Your task to perform on an android device: turn pop-ups off in chrome Image 0: 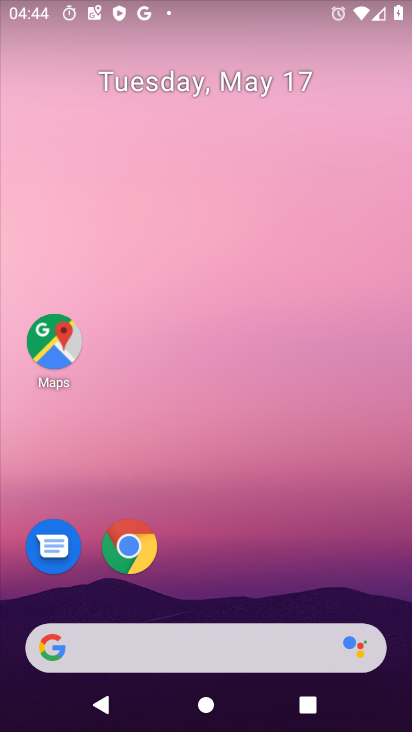
Step 0: click (139, 553)
Your task to perform on an android device: turn pop-ups off in chrome Image 1: 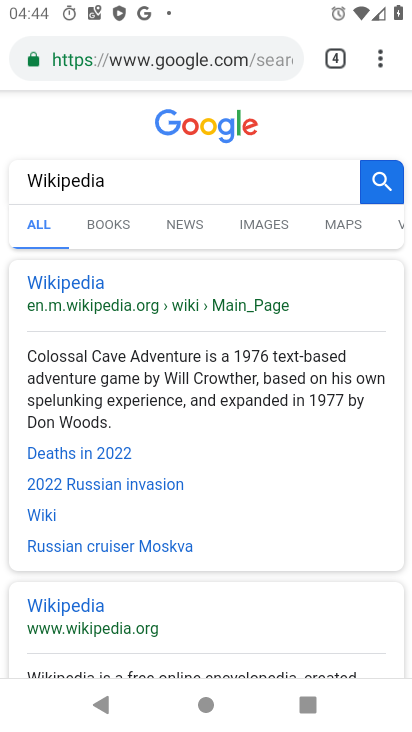
Step 1: click (380, 58)
Your task to perform on an android device: turn pop-ups off in chrome Image 2: 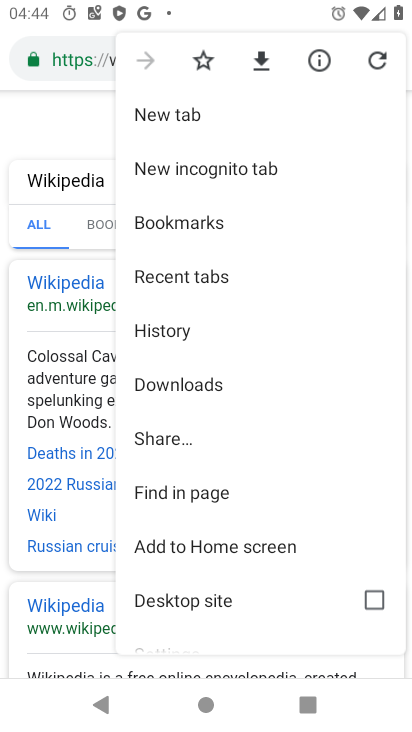
Step 2: drag from (254, 572) to (227, 382)
Your task to perform on an android device: turn pop-ups off in chrome Image 3: 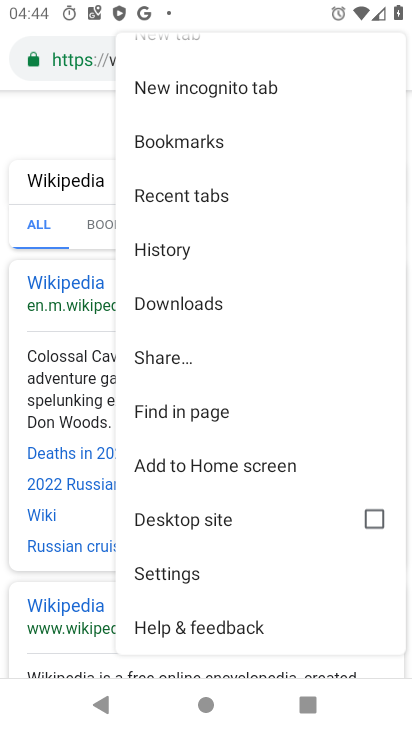
Step 3: click (169, 573)
Your task to perform on an android device: turn pop-ups off in chrome Image 4: 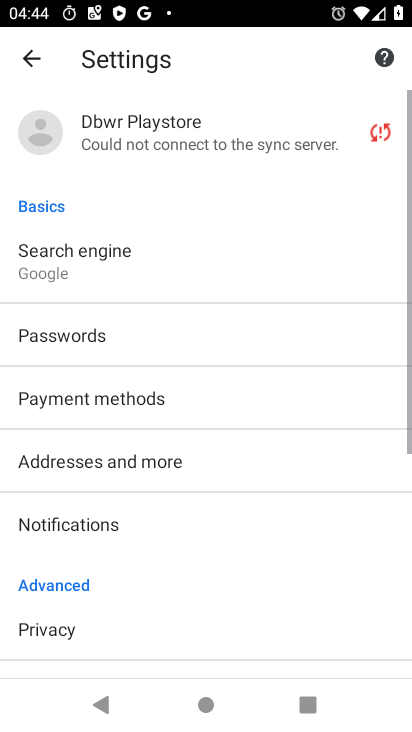
Step 4: drag from (260, 625) to (277, 342)
Your task to perform on an android device: turn pop-ups off in chrome Image 5: 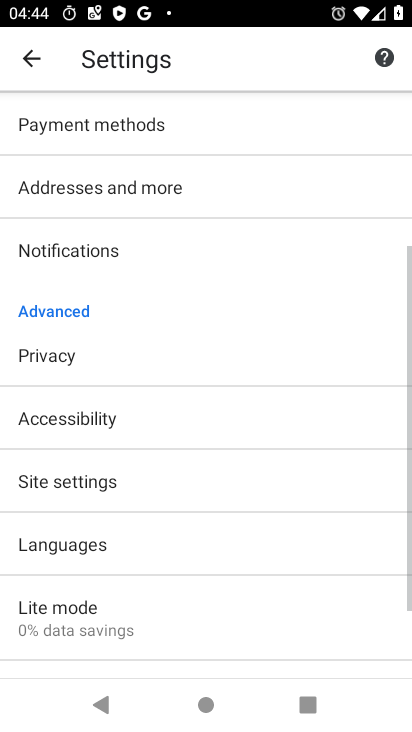
Step 5: click (51, 480)
Your task to perform on an android device: turn pop-ups off in chrome Image 6: 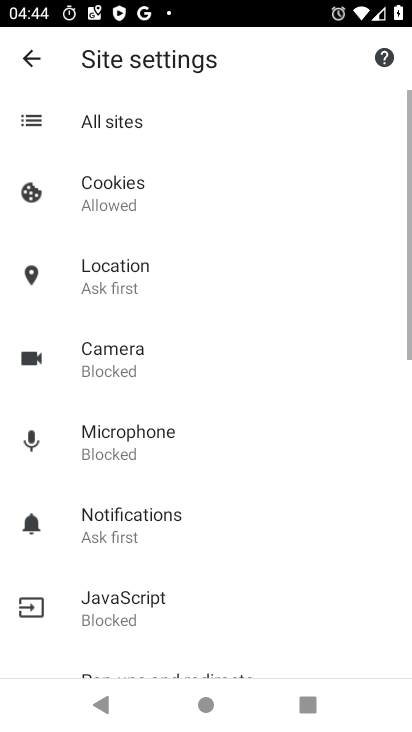
Step 6: drag from (250, 563) to (274, 308)
Your task to perform on an android device: turn pop-ups off in chrome Image 7: 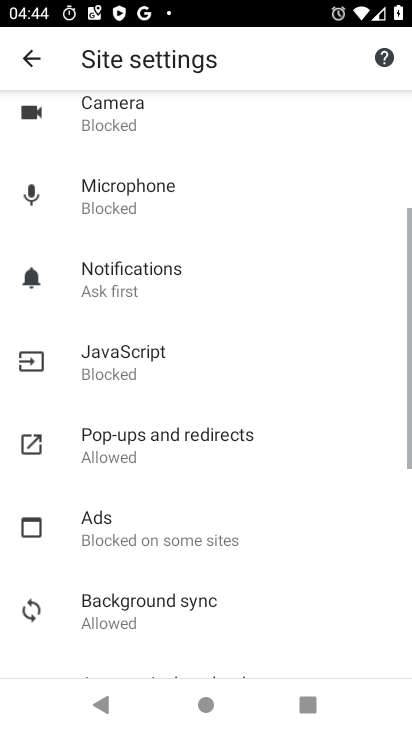
Step 7: click (120, 440)
Your task to perform on an android device: turn pop-ups off in chrome Image 8: 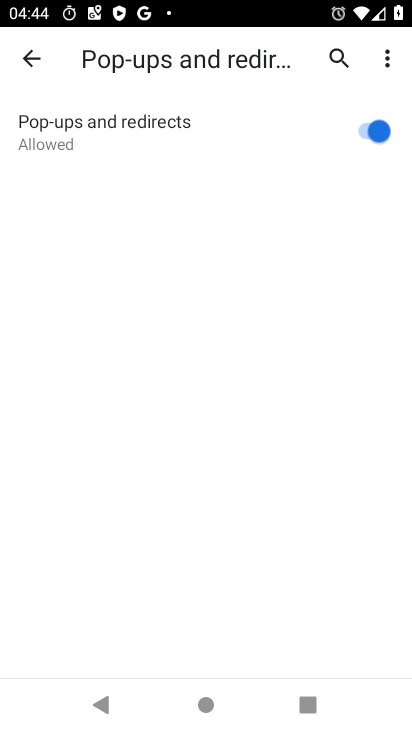
Step 8: click (364, 134)
Your task to perform on an android device: turn pop-ups off in chrome Image 9: 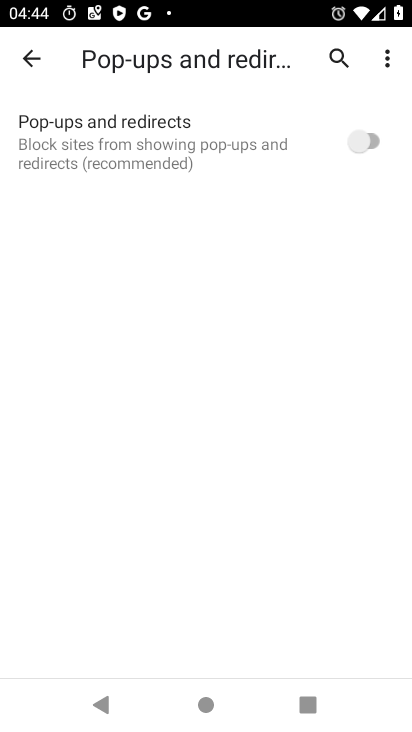
Step 9: task complete